Your task to perform on an android device: Go to CNN.com Image 0: 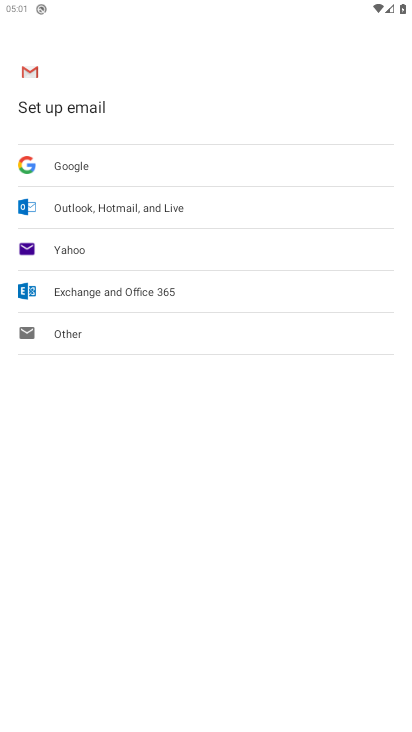
Step 0: press home button
Your task to perform on an android device: Go to CNN.com Image 1: 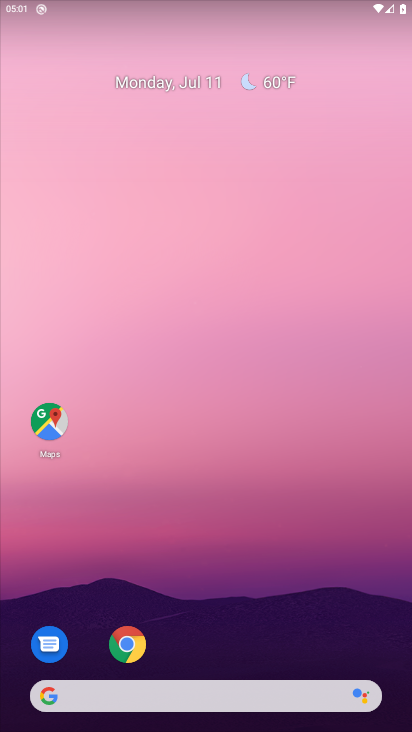
Step 1: drag from (167, 682) to (166, 329)
Your task to perform on an android device: Go to CNN.com Image 2: 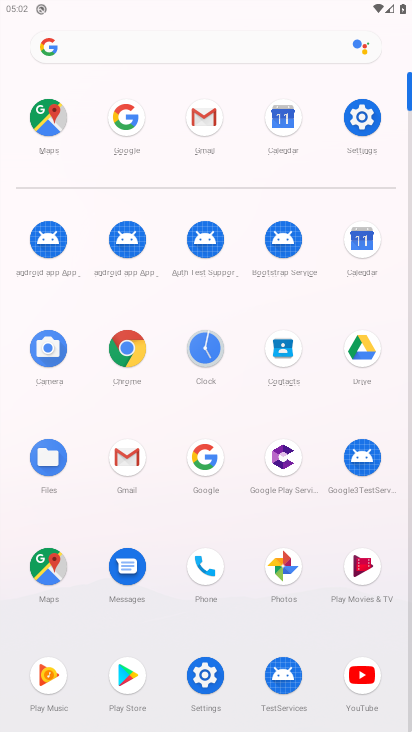
Step 2: click (204, 455)
Your task to perform on an android device: Go to CNN.com Image 3: 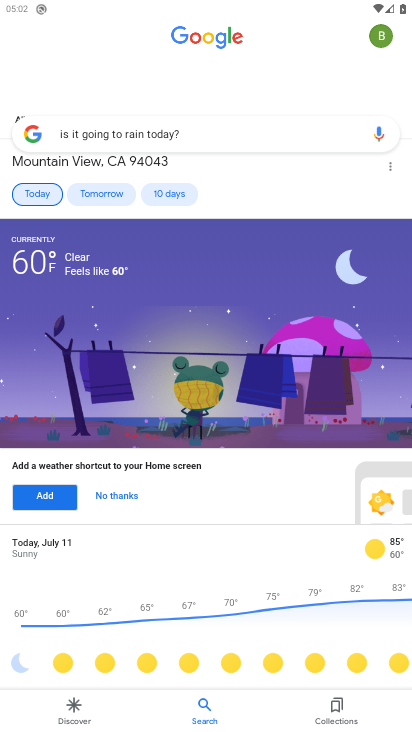
Step 3: click (227, 137)
Your task to perform on an android device: Go to CNN.com Image 4: 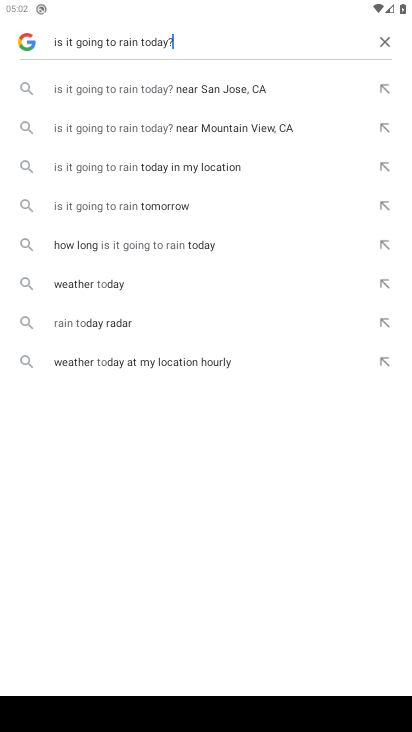
Step 4: click (387, 40)
Your task to perform on an android device: Go to CNN.com Image 5: 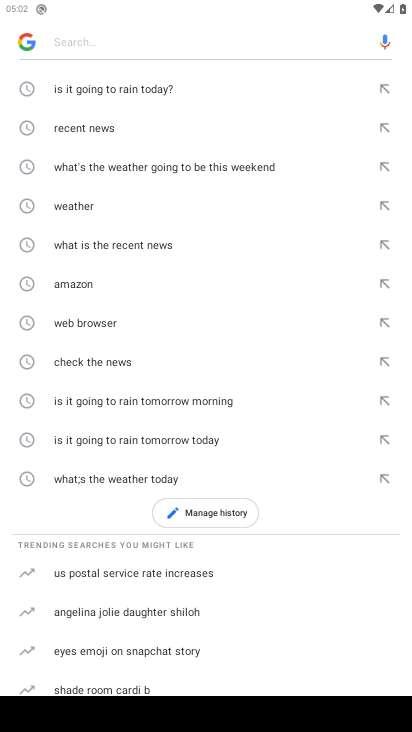
Step 5: type "CNN.com"
Your task to perform on an android device: Go to CNN.com Image 6: 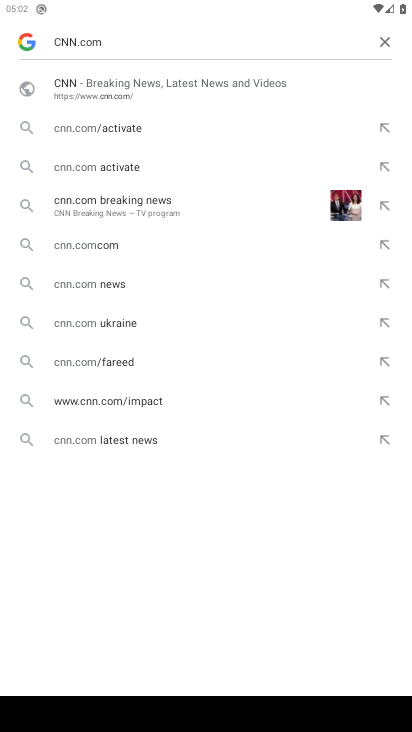
Step 6: click (81, 82)
Your task to perform on an android device: Go to CNN.com Image 7: 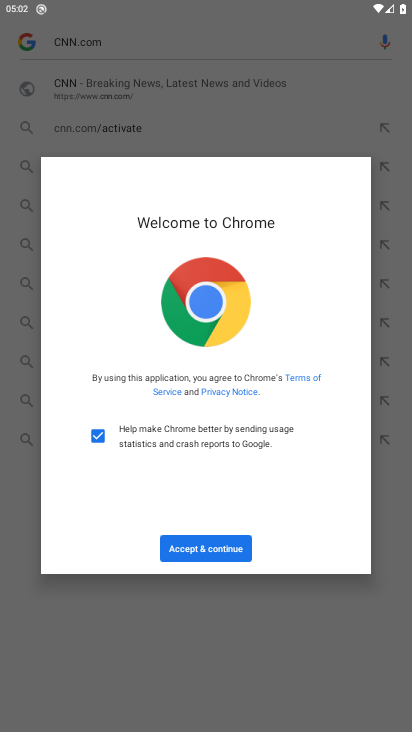
Step 7: click (224, 561)
Your task to perform on an android device: Go to CNN.com Image 8: 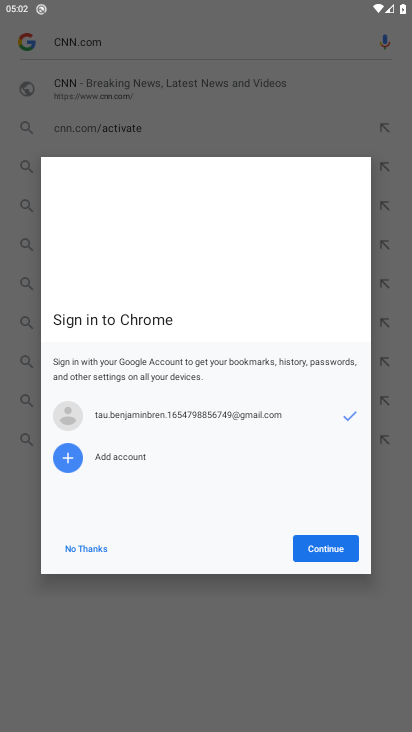
Step 8: click (328, 561)
Your task to perform on an android device: Go to CNN.com Image 9: 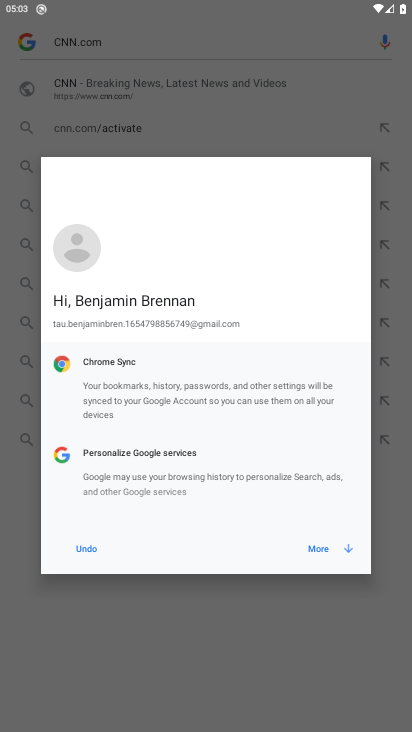
Step 9: click (317, 545)
Your task to perform on an android device: Go to CNN.com Image 10: 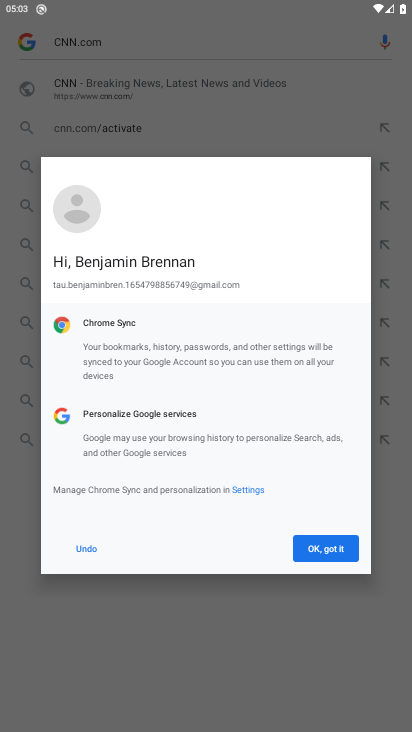
Step 10: click (311, 551)
Your task to perform on an android device: Go to CNN.com Image 11: 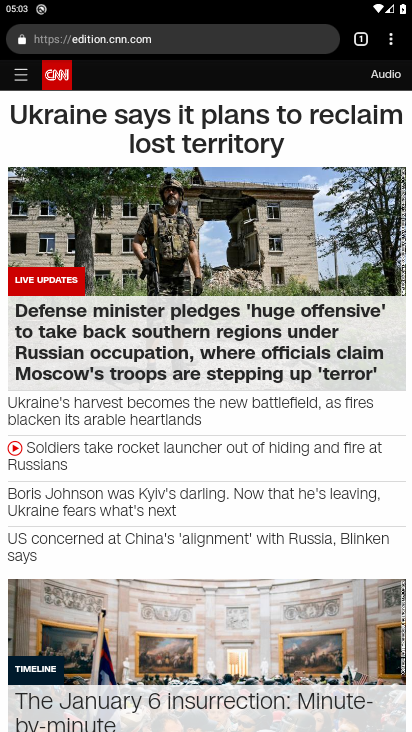
Step 11: task complete